Your task to perform on an android device: Open ESPN.com Image 0: 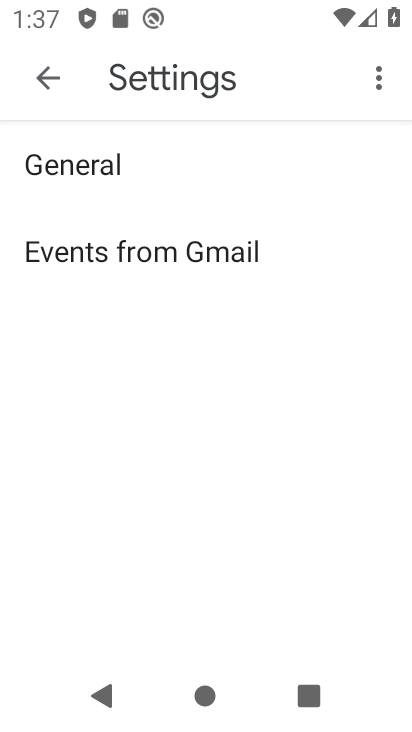
Step 0: press home button
Your task to perform on an android device: Open ESPN.com Image 1: 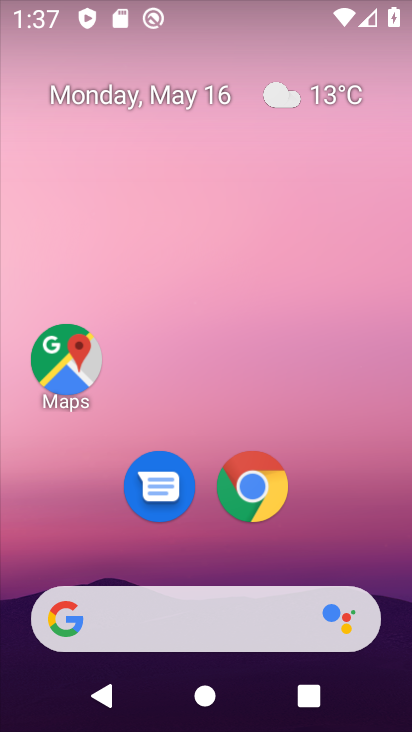
Step 1: drag from (364, 480) to (342, 56)
Your task to perform on an android device: Open ESPN.com Image 2: 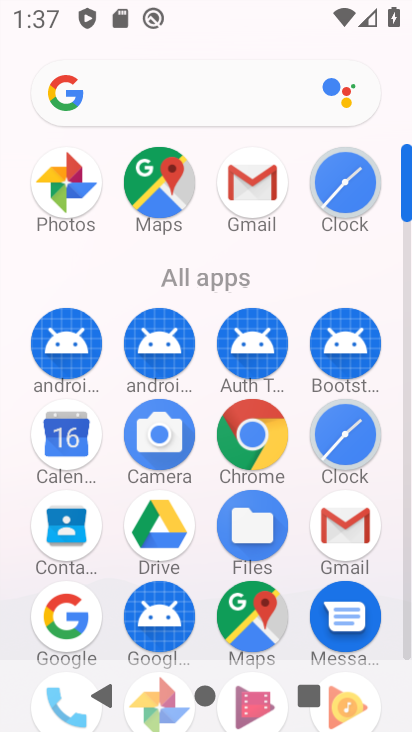
Step 2: click (255, 437)
Your task to perform on an android device: Open ESPN.com Image 3: 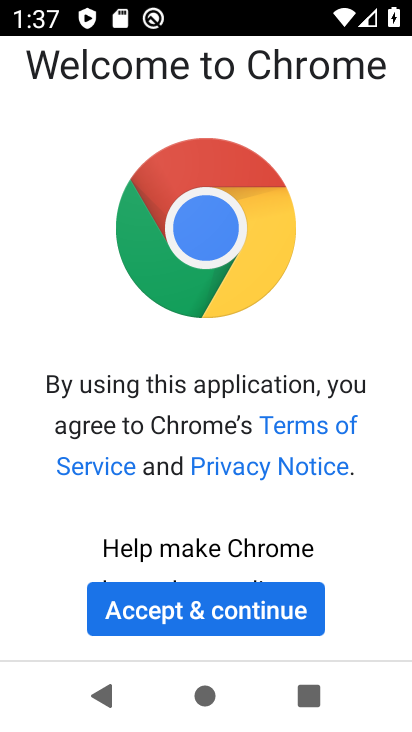
Step 3: click (219, 605)
Your task to perform on an android device: Open ESPN.com Image 4: 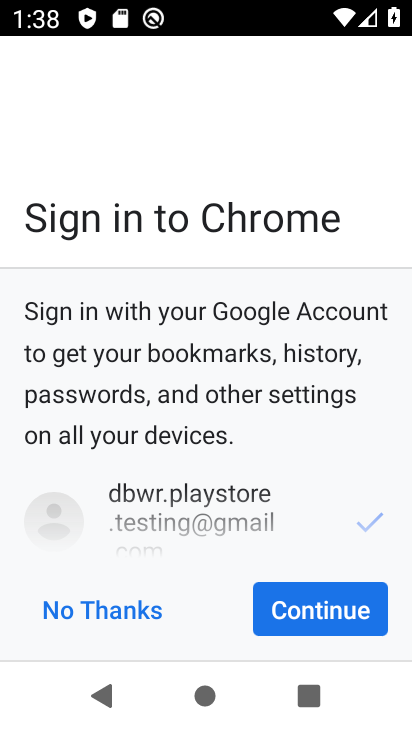
Step 4: click (122, 615)
Your task to perform on an android device: Open ESPN.com Image 5: 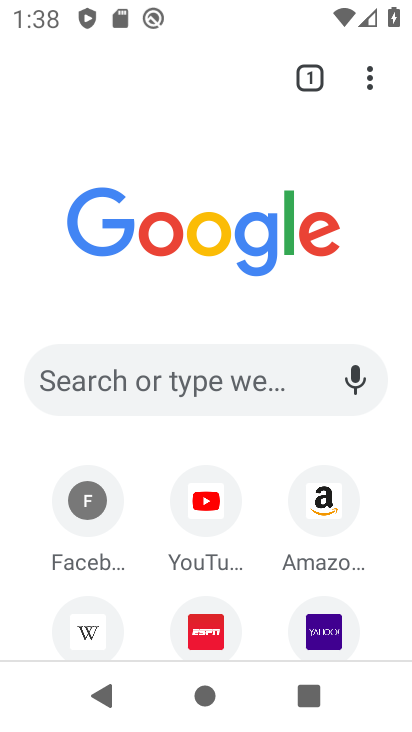
Step 5: drag from (405, 604) to (384, 178)
Your task to perform on an android device: Open ESPN.com Image 6: 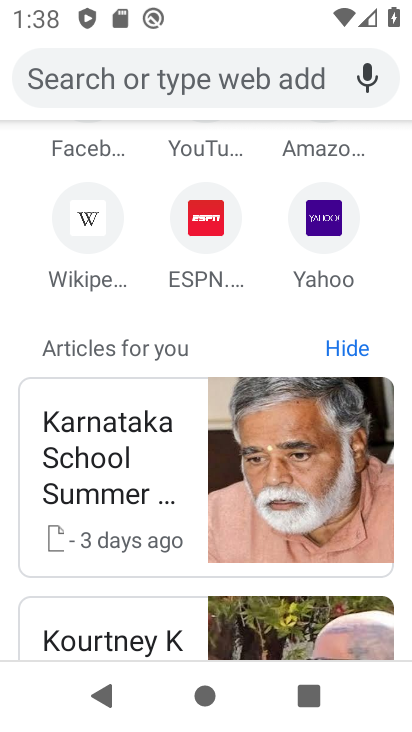
Step 6: click (200, 235)
Your task to perform on an android device: Open ESPN.com Image 7: 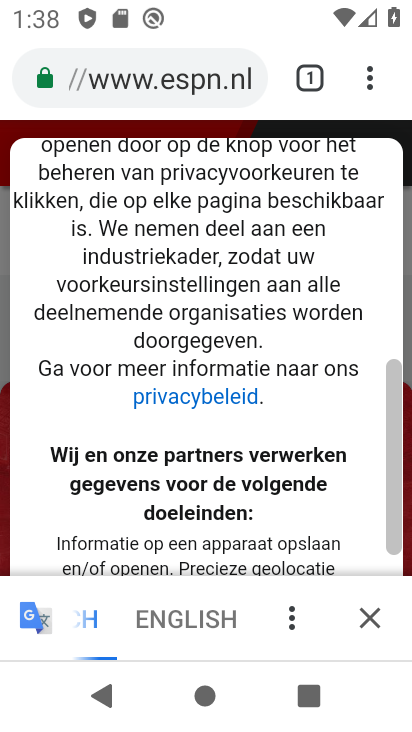
Step 7: task complete